Your task to perform on an android device: visit the assistant section in the google photos Image 0: 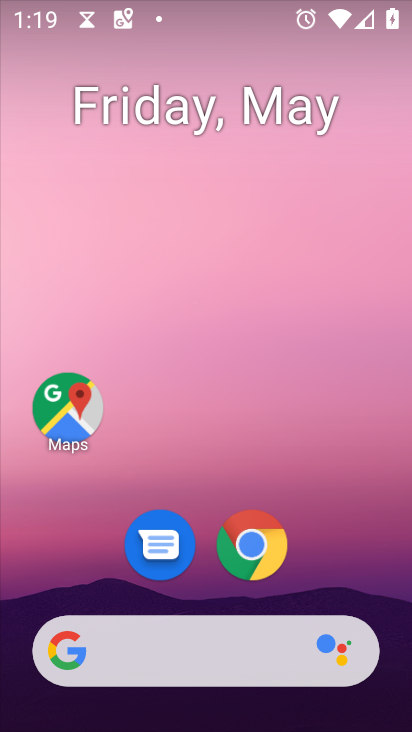
Step 0: drag from (325, 565) to (271, 213)
Your task to perform on an android device: visit the assistant section in the google photos Image 1: 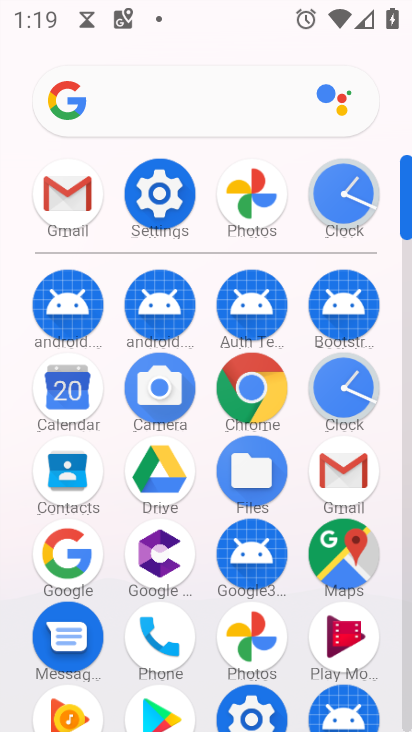
Step 1: click (257, 650)
Your task to perform on an android device: visit the assistant section in the google photos Image 2: 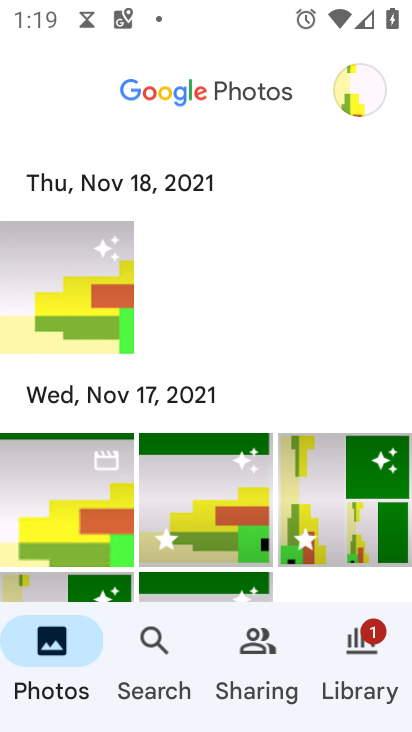
Step 2: click (365, 95)
Your task to perform on an android device: visit the assistant section in the google photos Image 3: 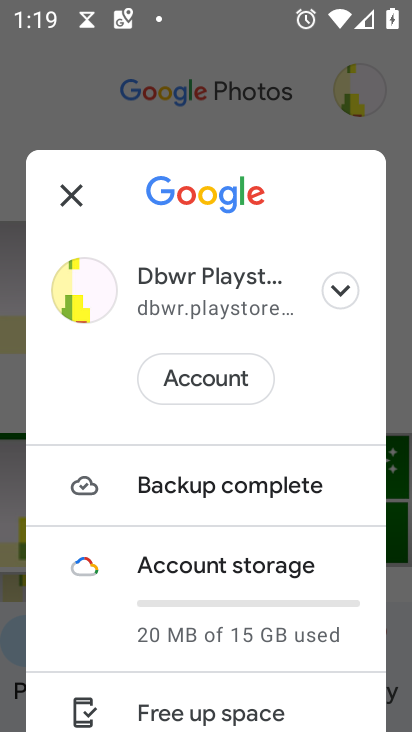
Step 3: drag from (214, 646) to (218, 494)
Your task to perform on an android device: visit the assistant section in the google photos Image 4: 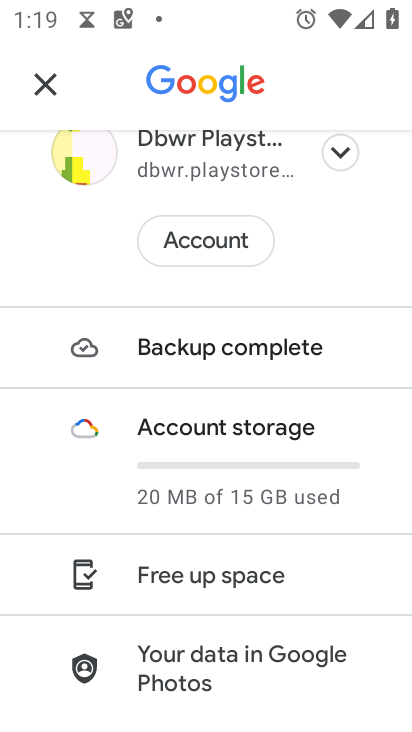
Step 4: click (54, 89)
Your task to perform on an android device: visit the assistant section in the google photos Image 5: 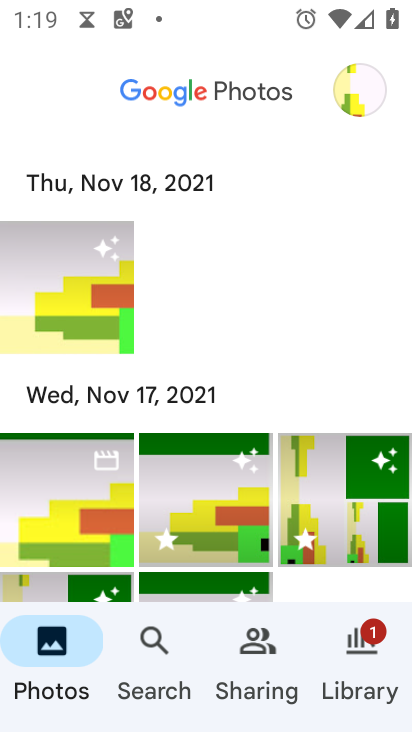
Step 5: click (352, 648)
Your task to perform on an android device: visit the assistant section in the google photos Image 6: 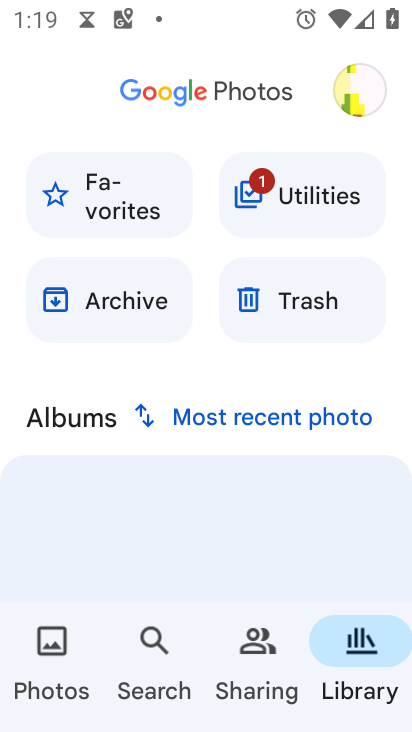
Step 6: click (250, 653)
Your task to perform on an android device: visit the assistant section in the google photos Image 7: 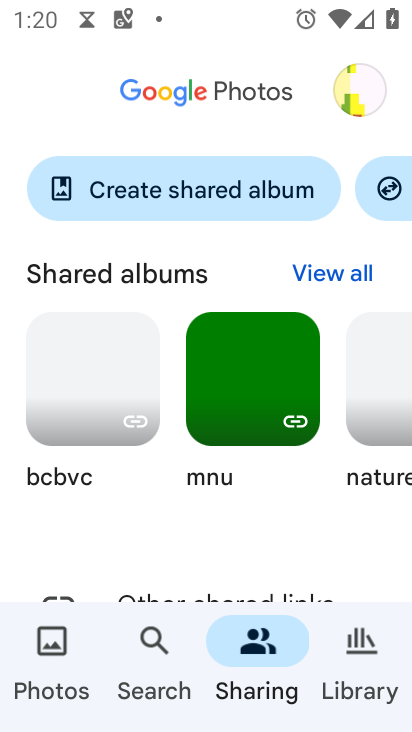
Step 7: task complete